Your task to perform on an android device: turn off smart reply in the gmail app Image 0: 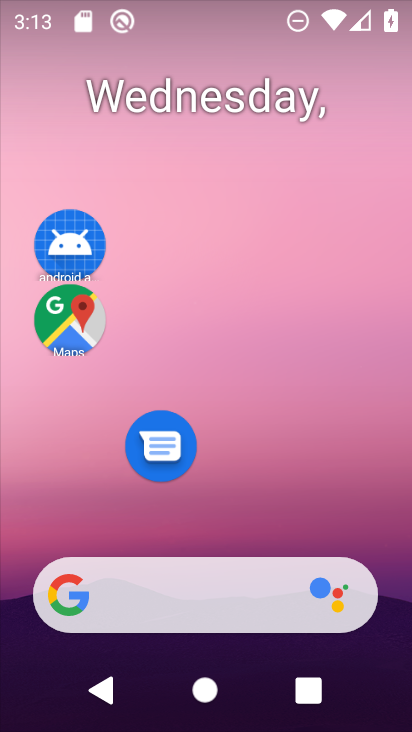
Step 0: drag from (308, 489) to (308, 326)
Your task to perform on an android device: turn off smart reply in the gmail app Image 1: 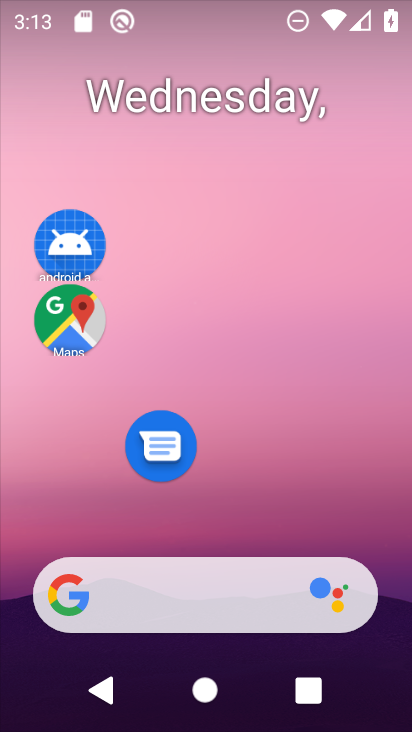
Step 1: drag from (288, 475) to (316, 140)
Your task to perform on an android device: turn off smart reply in the gmail app Image 2: 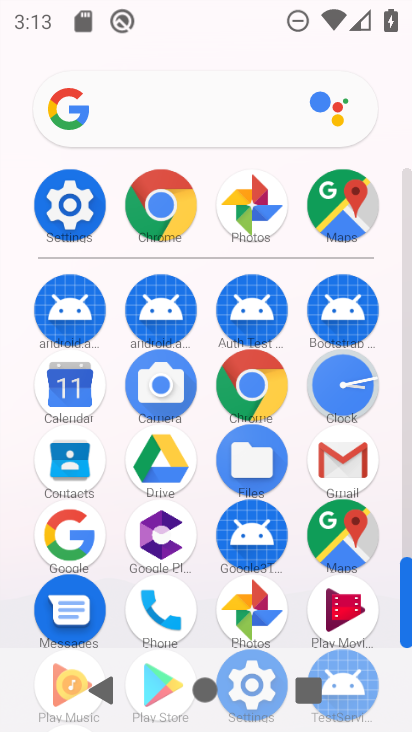
Step 2: click (325, 451)
Your task to perform on an android device: turn off smart reply in the gmail app Image 3: 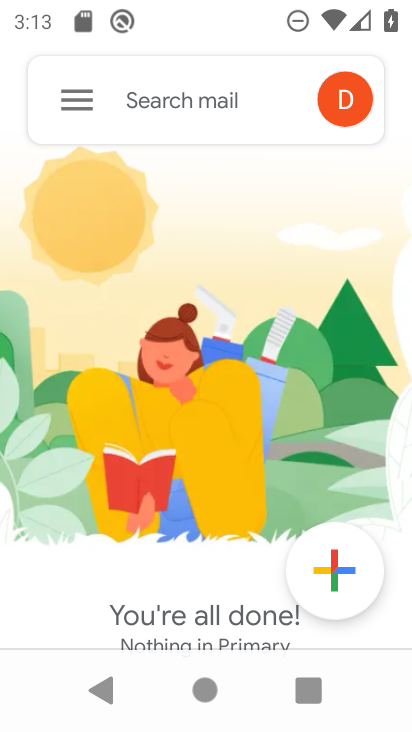
Step 3: click (74, 108)
Your task to perform on an android device: turn off smart reply in the gmail app Image 4: 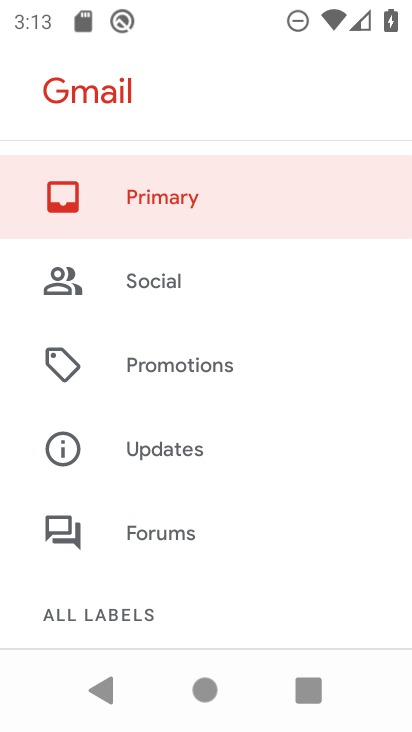
Step 4: drag from (101, 596) to (105, 383)
Your task to perform on an android device: turn off smart reply in the gmail app Image 5: 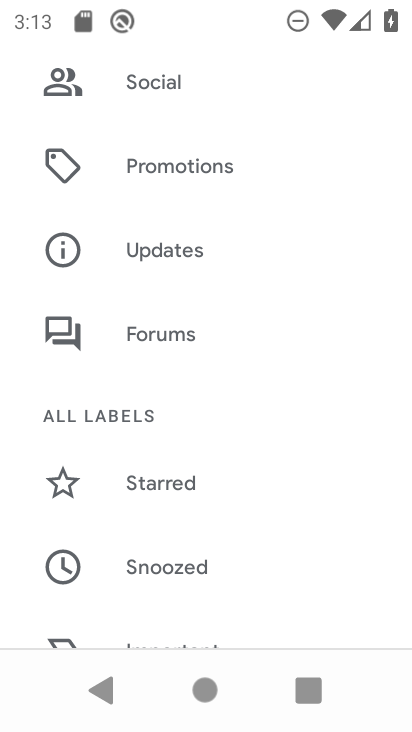
Step 5: drag from (258, 617) to (302, 41)
Your task to perform on an android device: turn off smart reply in the gmail app Image 6: 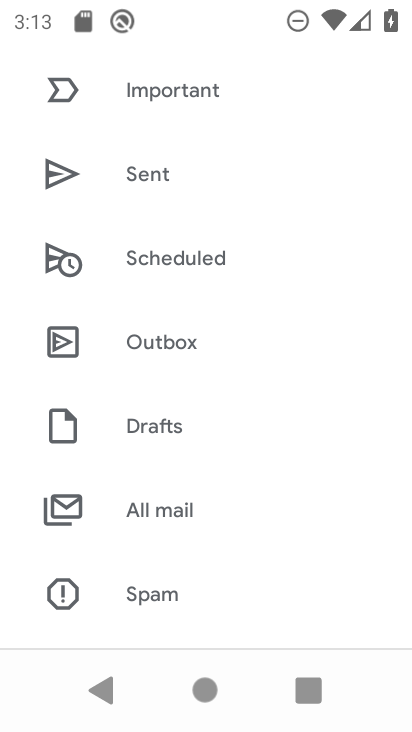
Step 6: drag from (235, 549) to (241, 290)
Your task to perform on an android device: turn off smart reply in the gmail app Image 7: 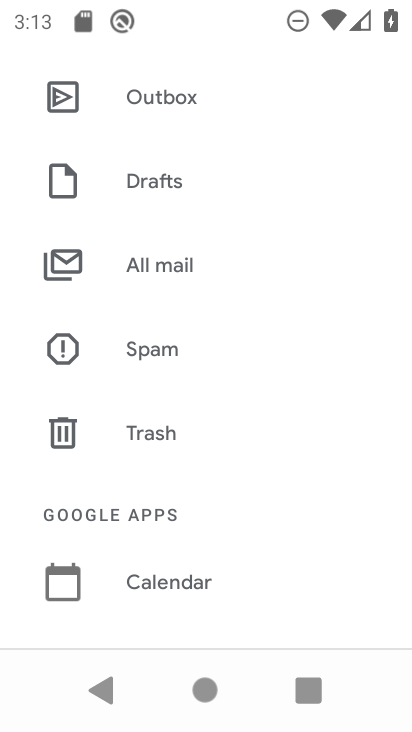
Step 7: drag from (248, 552) to (270, 258)
Your task to perform on an android device: turn off smart reply in the gmail app Image 8: 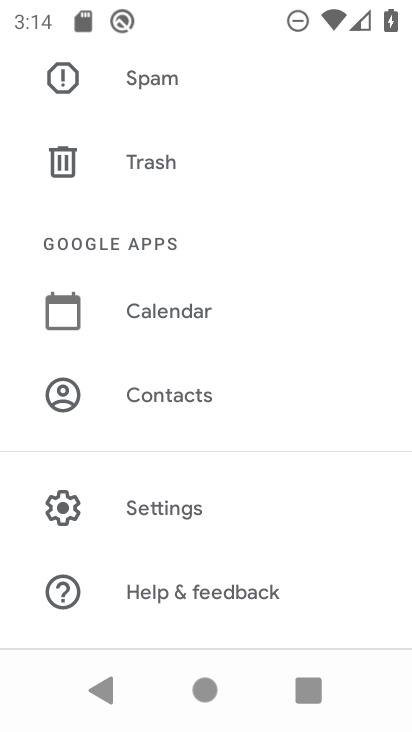
Step 8: click (227, 520)
Your task to perform on an android device: turn off smart reply in the gmail app Image 9: 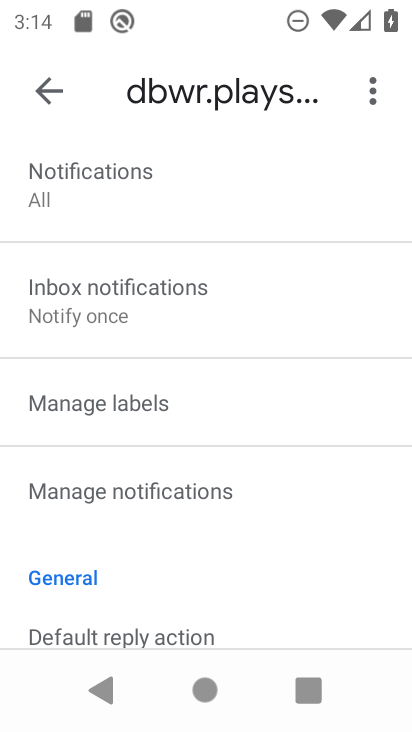
Step 9: drag from (227, 515) to (306, 2)
Your task to perform on an android device: turn off smart reply in the gmail app Image 10: 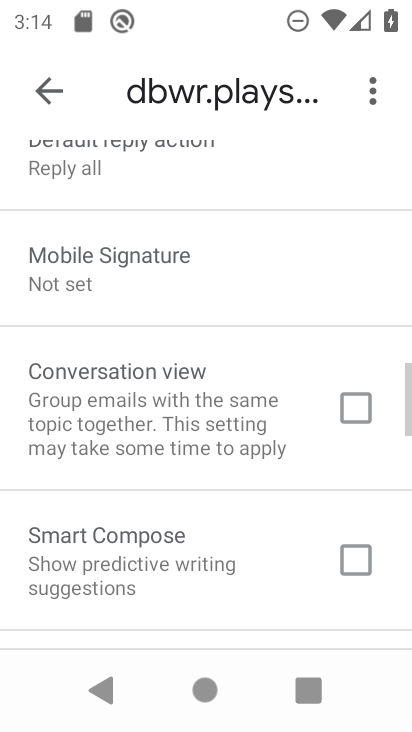
Step 10: drag from (198, 466) to (230, 149)
Your task to perform on an android device: turn off smart reply in the gmail app Image 11: 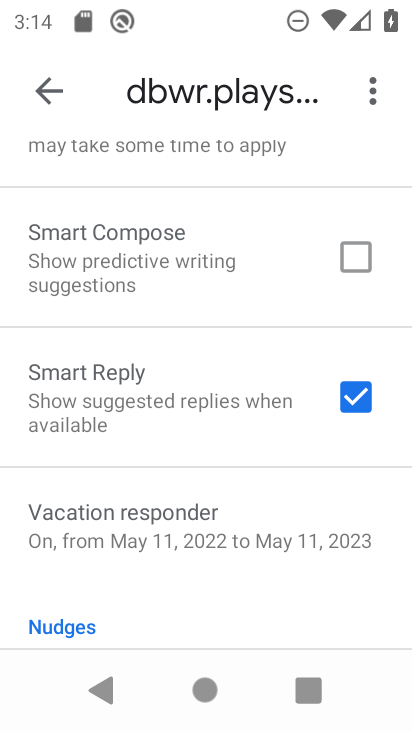
Step 11: click (344, 405)
Your task to perform on an android device: turn off smart reply in the gmail app Image 12: 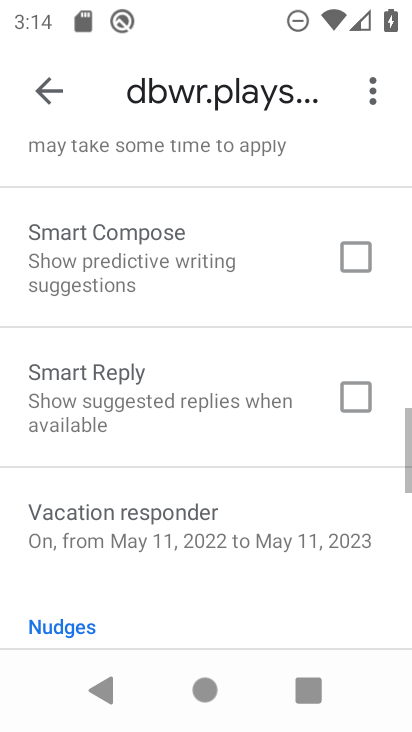
Step 12: task complete